Your task to perform on an android device: Add dell alienware to the cart on target Image 0: 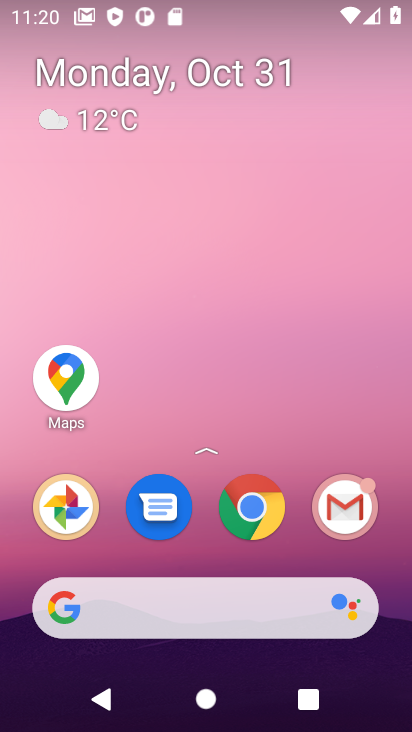
Step 0: drag from (224, 554) to (232, 81)
Your task to perform on an android device: Add dell alienware to the cart on target Image 1: 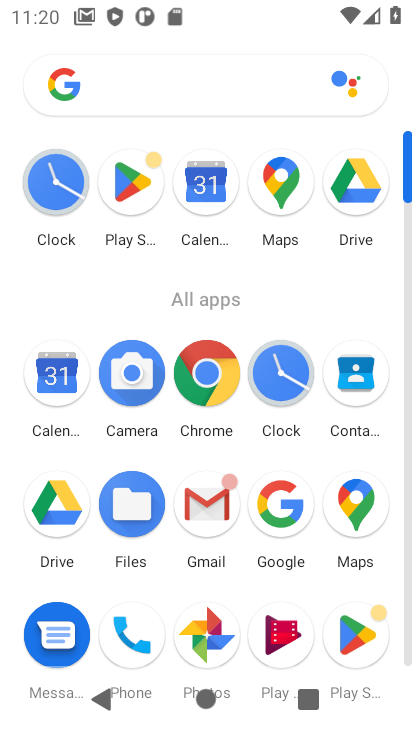
Step 1: click (208, 370)
Your task to perform on an android device: Add dell alienware to the cart on target Image 2: 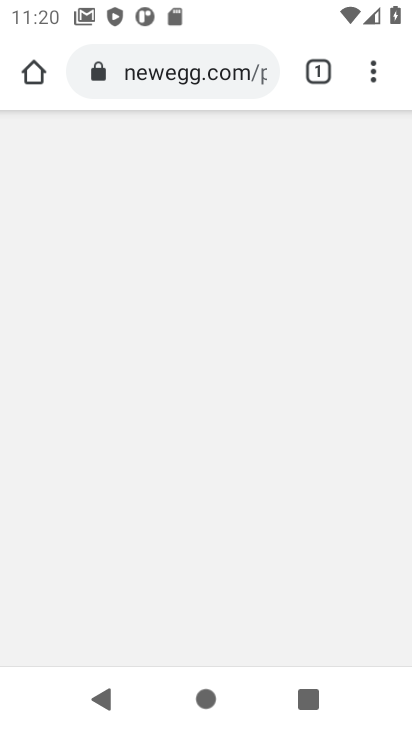
Step 2: click (186, 87)
Your task to perform on an android device: Add dell alienware to the cart on target Image 3: 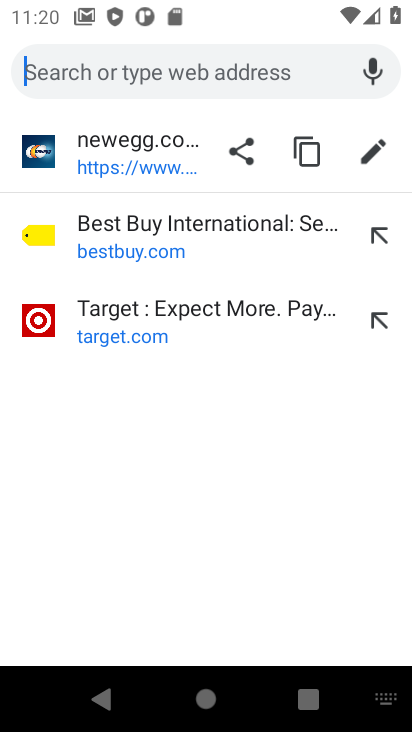
Step 3: type "target.com"
Your task to perform on an android device: Add dell alienware to the cart on target Image 4: 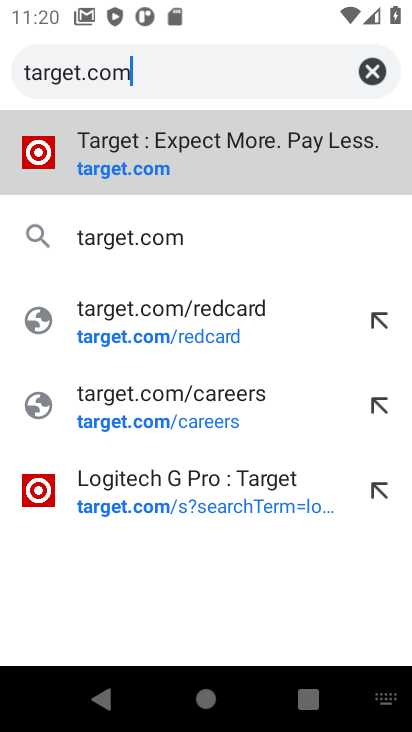
Step 4: press enter
Your task to perform on an android device: Add dell alienware to the cart on target Image 5: 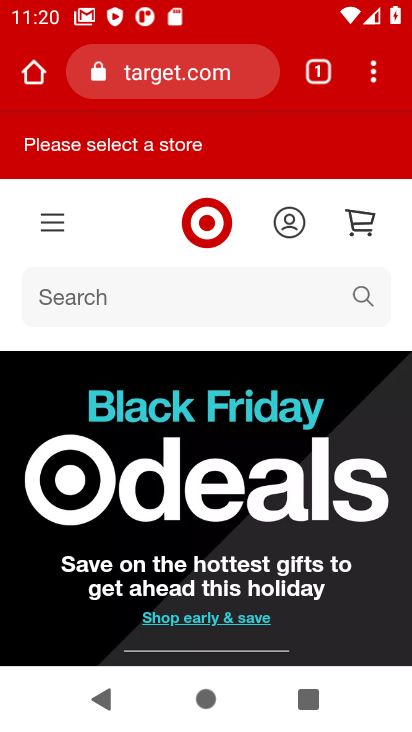
Step 5: click (297, 311)
Your task to perform on an android device: Add dell alienware to the cart on target Image 6: 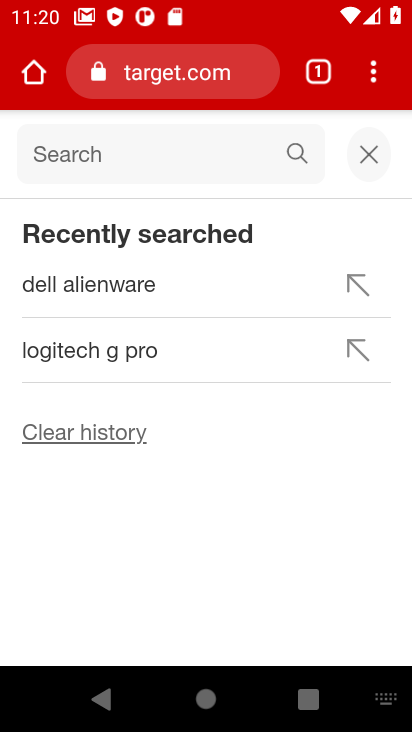
Step 6: type "dell alienware"
Your task to perform on an android device: Add dell alienware to the cart on target Image 7: 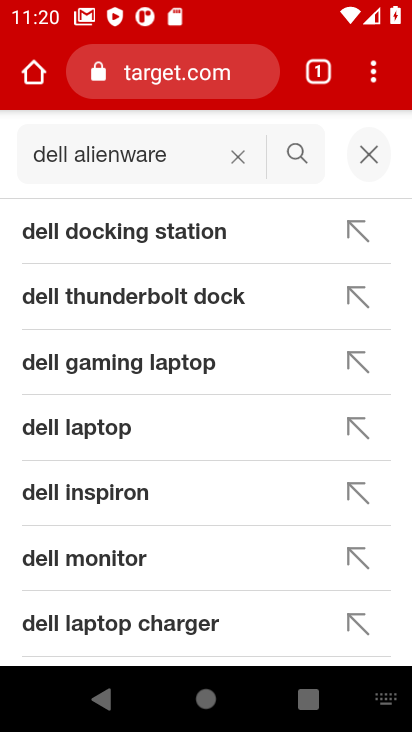
Step 7: press enter
Your task to perform on an android device: Add dell alienware to the cart on target Image 8: 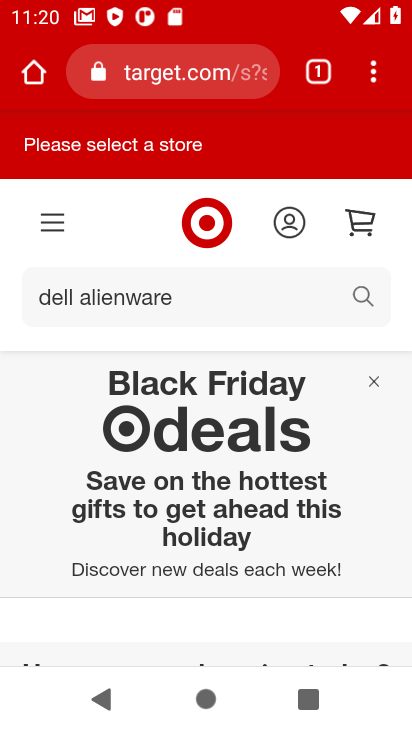
Step 8: task complete